Your task to perform on an android device: Show me popular games on the Play Store Image 0: 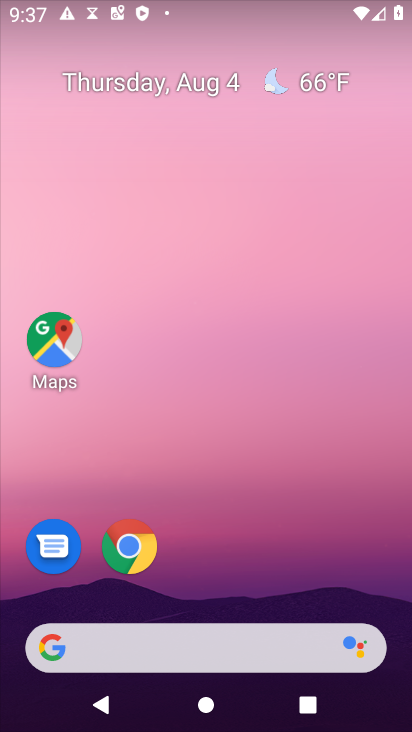
Step 0: press home button
Your task to perform on an android device: Show me popular games on the Play Store Image 1: 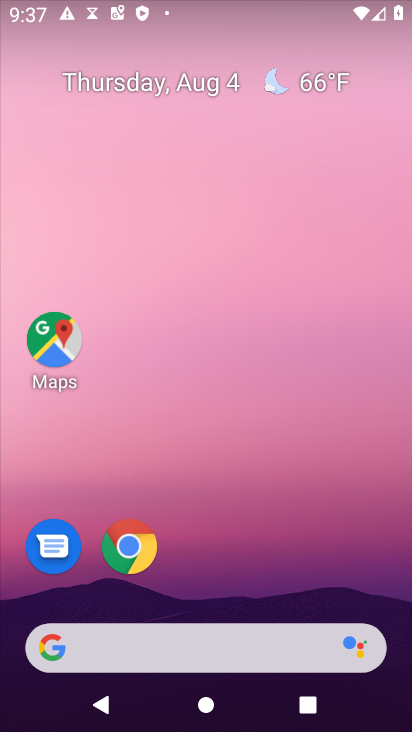
Step 1: drag from (248, 491) to (191, 11)
Your task to perform on an android device: Show me popular games on the Play Store Image 2: 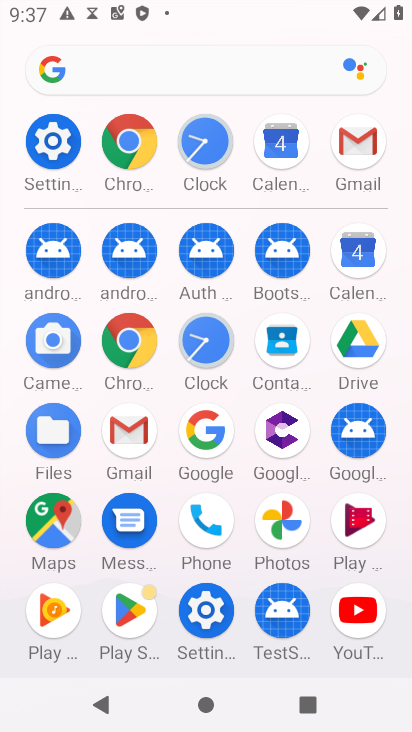
Step 2: click (135, 615)
Your task to perform on an android device: Show me popular games on the Play Store Image 3: 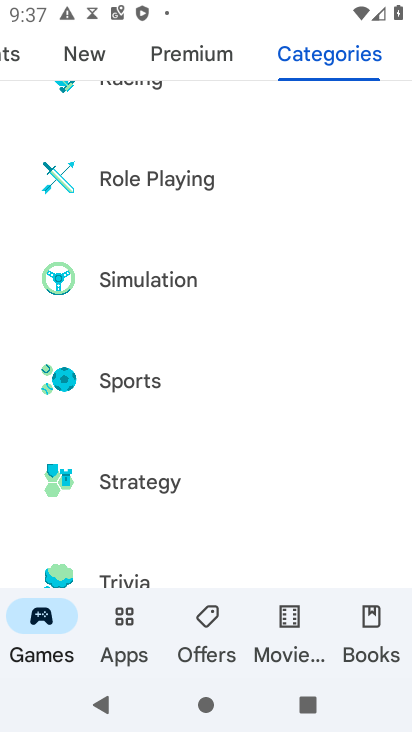
Step 3: task complete